Your task to perform on an android device: Go to eBay Image 0: 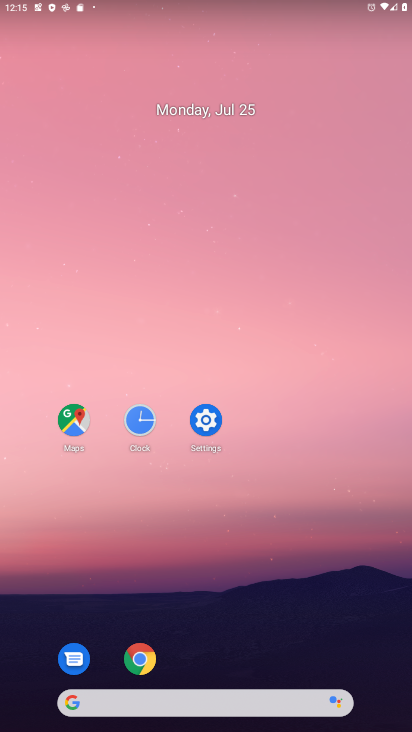
Step 0: click (136, 658)
Your task to perform on an android device: Go to eBay Image 1: 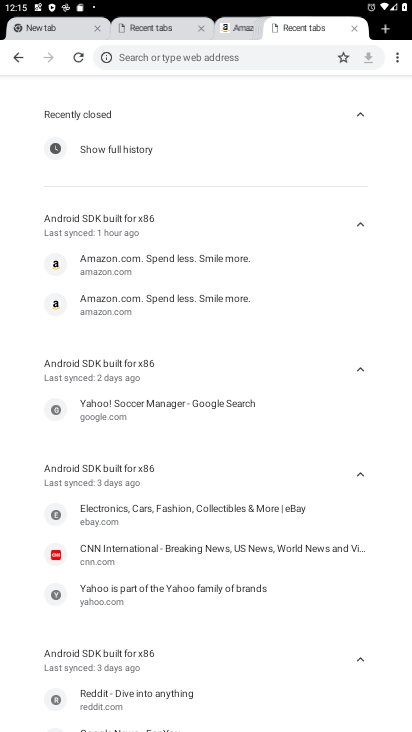
Step 1: click (279, 54)
Your task to perform on an android device: Go to eBay Image 2: 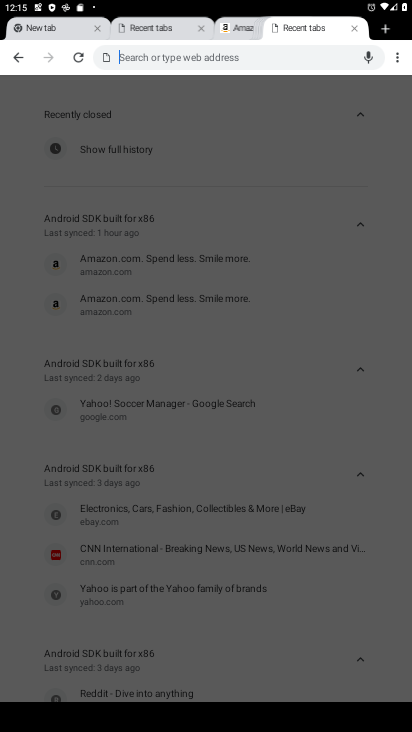
Step 2: type " eBay"
Your task to perform on an android device: Go to eBay Image 3: 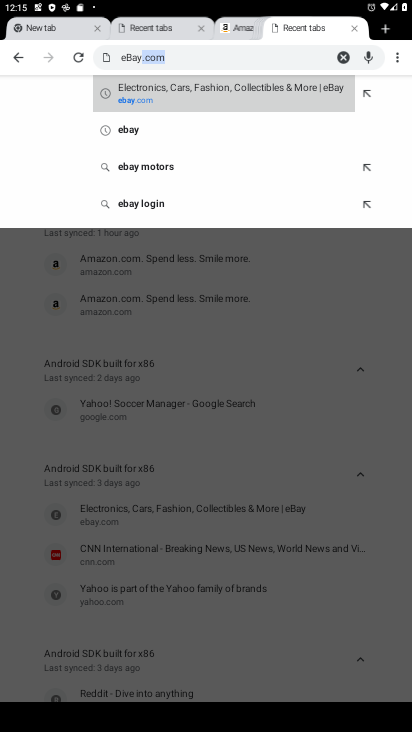
Step 3: click (121, 122)
Your task to perform on an android device: Go to eBay Image 4: 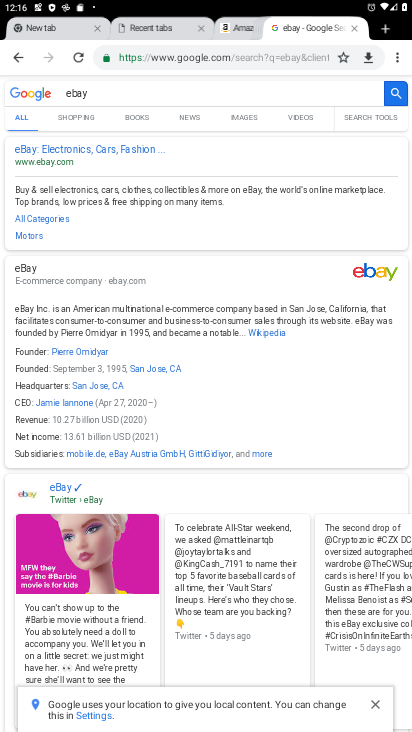
Step 4: task complete